Your task to perform on an android device: install app "Upside-Cash back on gas & food" Image 0: 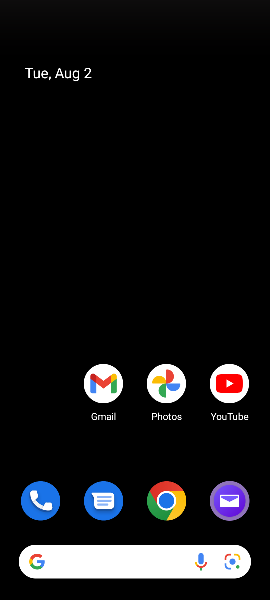
Step 0: drag from (154, 503) to (192, 139)
Your task to perform on an android device: install app "Upside-Cash back on gas & food" Image 1: 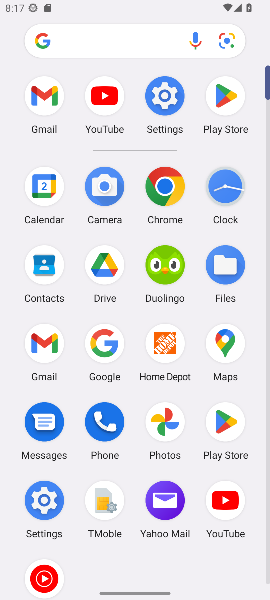
Step 1: click (231, 108)
Your task to perform on an android device: install app "Upside-Cash back on gas & food" Image 2: 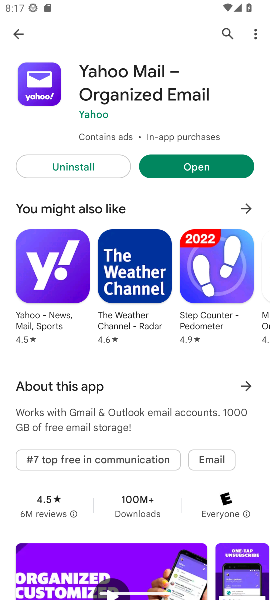
Step 2: drag from (162, 387) to (150, 599)
Your task to perform on an android device: install app "Upside-Cash back on gas & food" Image 3: 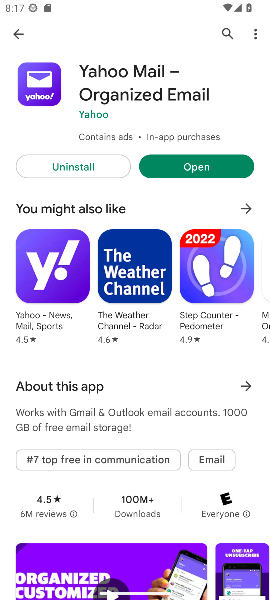
Step 3: drag from (160, 517) to (149, 304)
Your task to perform on an android device: install app "Upside-Cash back on gas & food" Image 4: 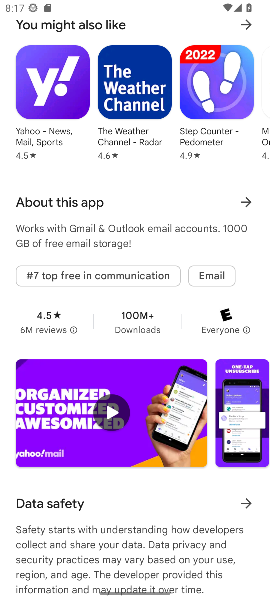
Step 4: drag from (192, 159) to (141, 546)
Your task to perform on an android device: install app "Upside-Cash back on gas & food" Image 5: 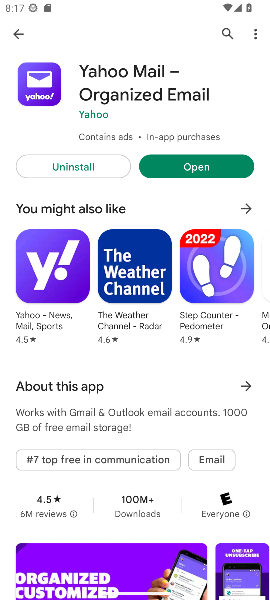
Step 5: drag from (178, 104) to (185, 493)
Your task to perform on an android device: install app "Upside-Cash back on gas & food" Image 6: 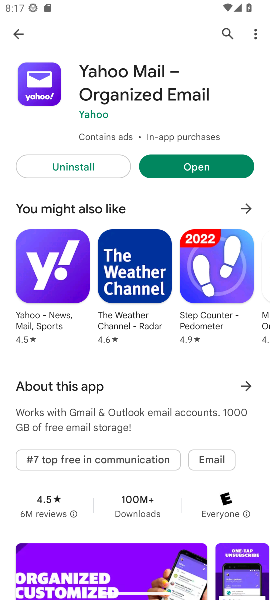
Step 6: drag from (119, 422) to (131, 456)
Your task to perform on an android device: install app "Upside-Cash back on gas & food" Image 7: 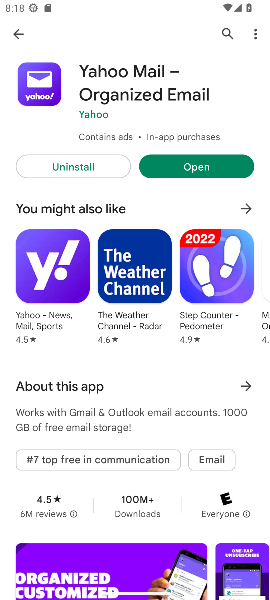
Step 7: drag from (194, 133) to (193, 342)
Your task to perform on an android device: install app "Upside-Cash back on gas & food" Image 8: 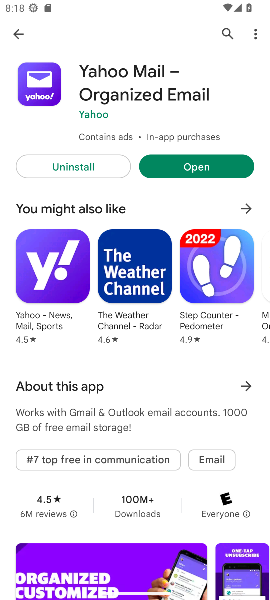
Step 8: click (225, 28)
Your task to perform on an android device: install app "Upside-Cash back on gas & food" Image 9: 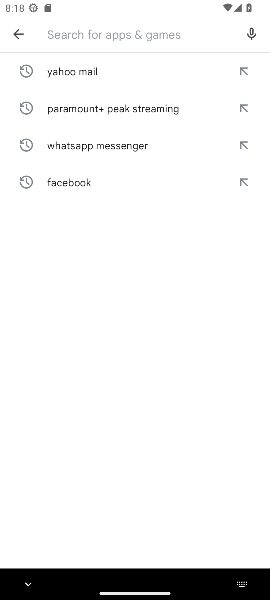
Step 9: click (95, 70)
Your task to perform on an android device: install app "Upside-Cash back on gas & food" Image 10: 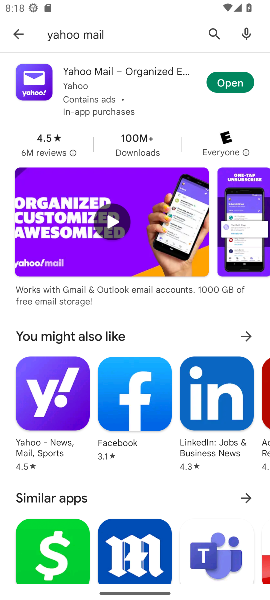
Step 10: click (216, 35)
Your task to perform on an android device: install app "Upside-Cash back on gas & food" Image 11: 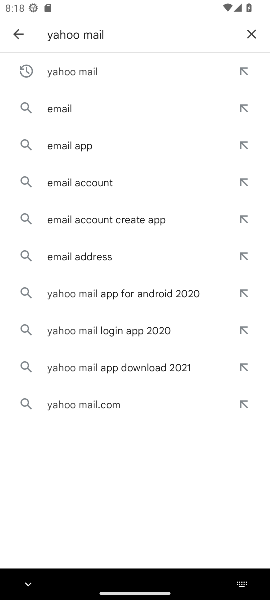
Step 11: click (246, 33)
Your task to perform on an android device: install app "Upside-Cash back on gas & food" Image 12: 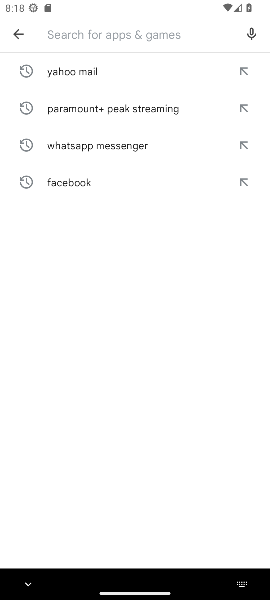
Step 12: click (77, 33)
Your task to perform on an android device: install app "Upside-Cash back on gas & food" Image 13: 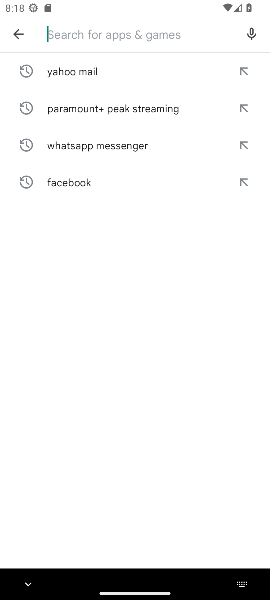
Step 13: click (56, 29)
Your task to perform on an android device: install app "Upside-Cash back on gas & food" Image 14: 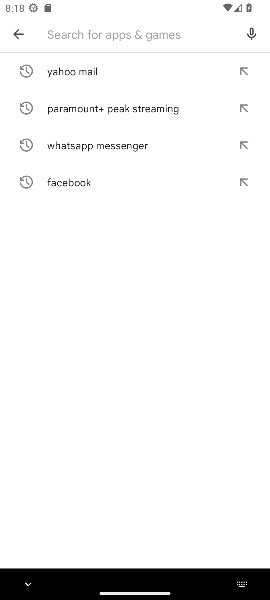
Step 14: type "Upside-Cash back on gas & food"
Your task to perform on an android device: install app "Upside-Cash back on gas & food" Image 15: 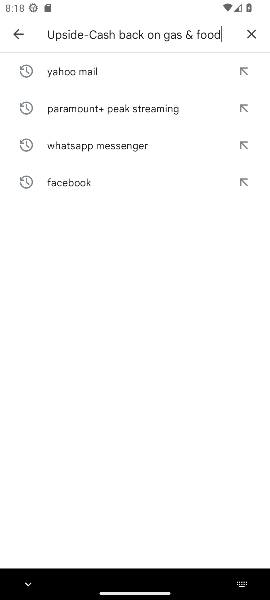
Step 15: type ""
Your task to perform on an android device: install app "Upside-Cash back on gas & food" Image 16: 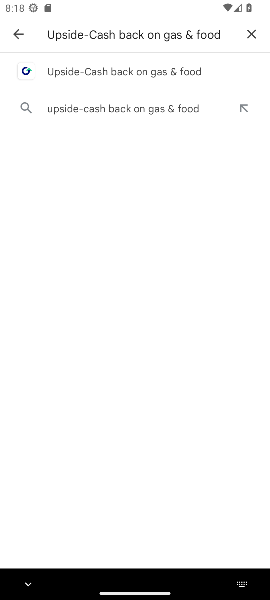
Step 16: click (72, 74)
Your task to perform on an android device: install app "Upside-Cash back on gas & food" Image 17: 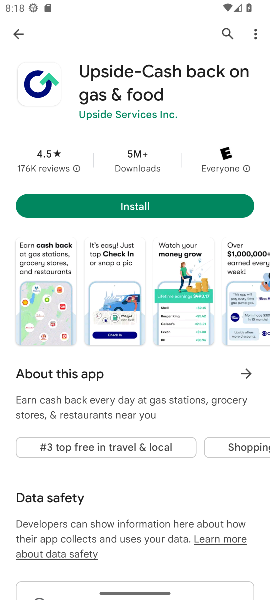
Step 17: drag from (170, 133) to (114, 492)
Your task to perform on an android device: install app "Upside-Cash back on gas & food" Image 18: 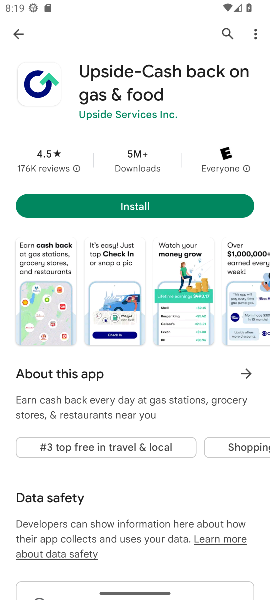
Step 18: drag from (175, 97) to (201, 386)
Your task to perform on an android device: install app "Upside-Cash back on gas & food" Image 19: 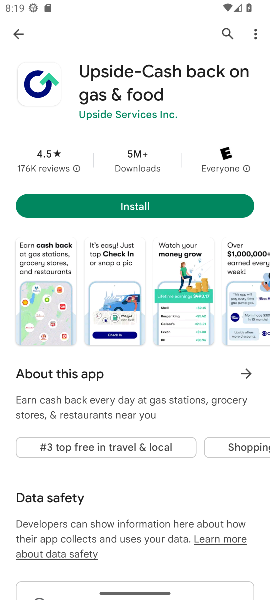
Step 19: drag from (193, 98) to (179, 559)
Your task to perform on an android device: install app "Upside-Cash back on gas & food" Image 20: 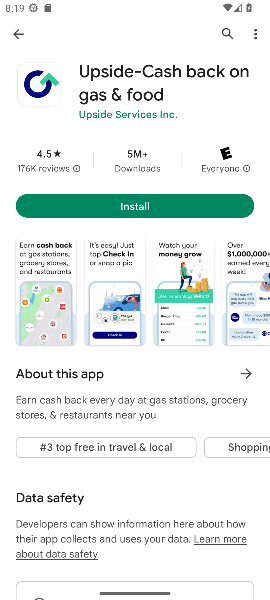
Step 20: drag from (170, 110) to (225, 595)
Your task to perform on an android device: install app "Upside-Cash back on gas & food" Image 21: 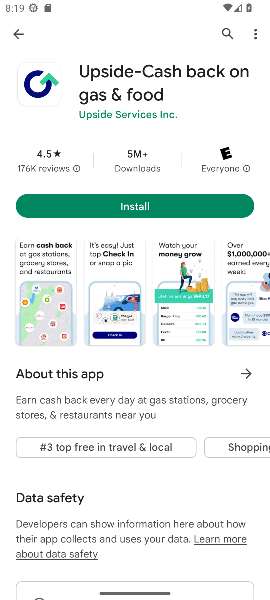
Step 21: drag from (210, 107) to (195, 488)
Your task to perform on an android device: install app "Upside-Cash back on gas & food" Image 22: 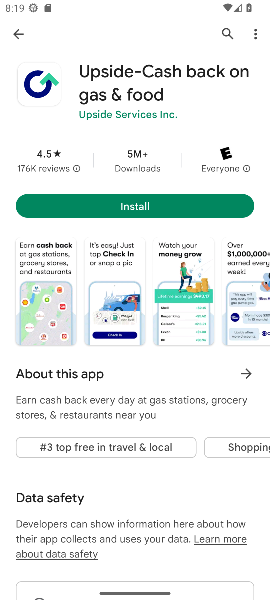
Step 22: click (108, 203)
Your task to perform on an android device: install app "Upside-Cash back on gas & food" Image 23: 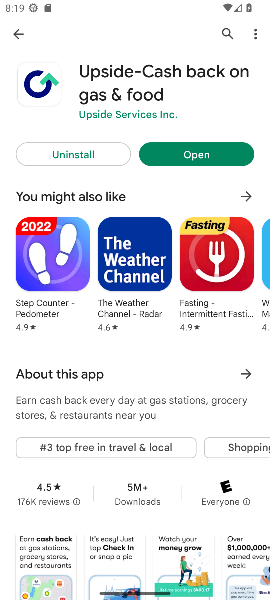
Step 23: task complete